Your task to perform on an android device: empty trash in google photos Image 0: 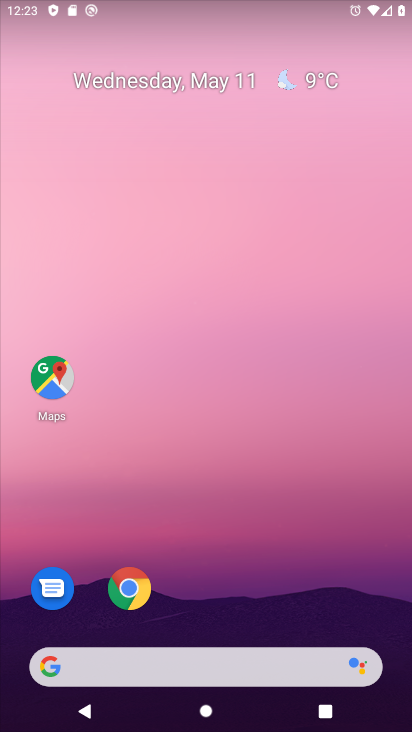
Step 0: drag from (322, 621) to (376, 80)
Your task to perform on an android device: empty trash in google photos Image 1: 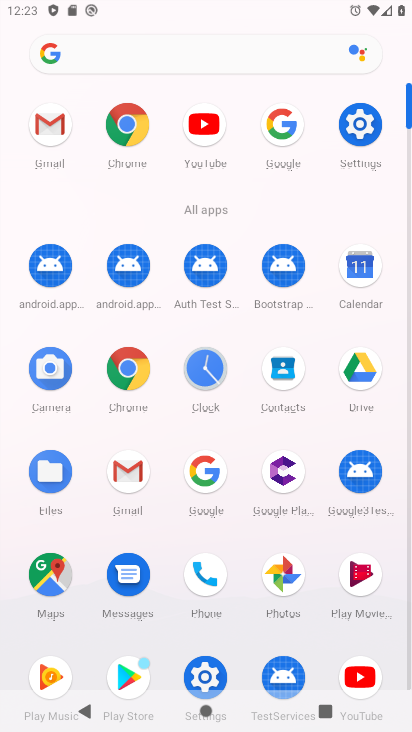
Step 1: click (287, 572)
Your task to perform on an android device: empty trash in google photos Image 2: 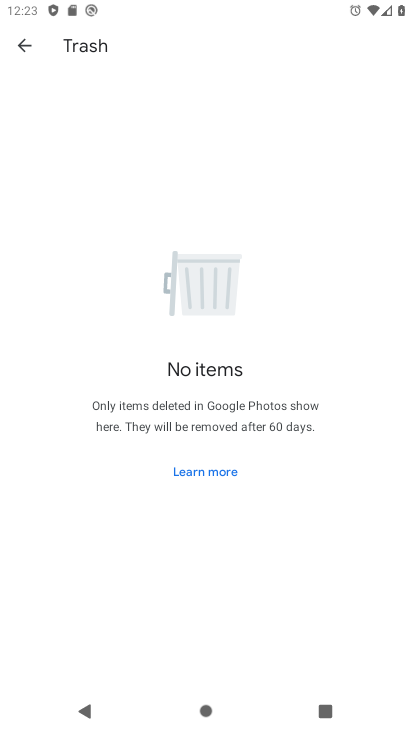
Step 2: task complete